Your task to perform on an android device: What's the weather going to be this weekend? Image 0: 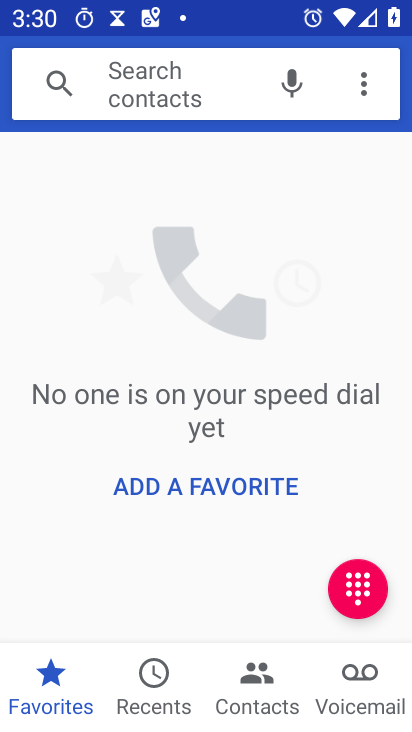
Step 0: press back button
Your task to perform on an android device: What's the weather going to be this weekend? Image 1: 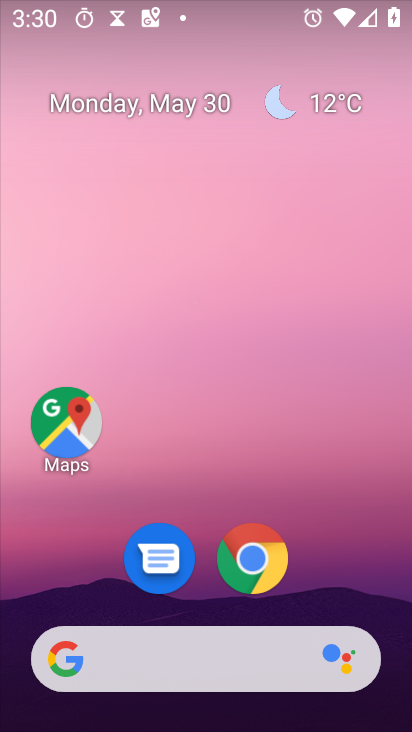
Step 1: click (282, 109)
Your task to perform on an android device: What's the weather going to be this weekend? Image 2: 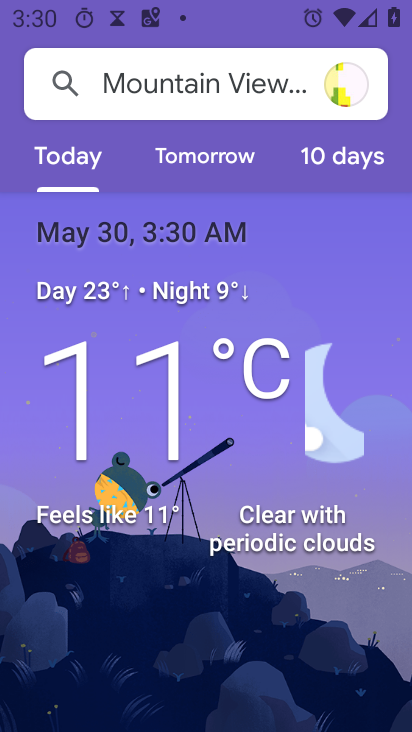
Step 2: click (317, 147)
Your task to perform on an android device: What's the weather going to be this weekend? Image 3: 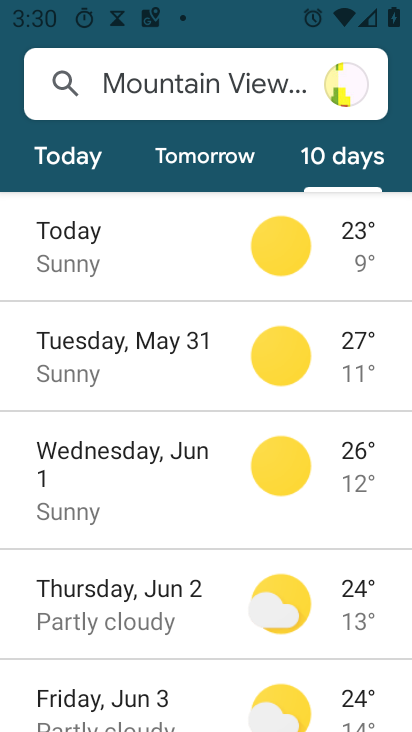
Step 3: task complete